Your task to perform on an android device: toggle sleep mode Image 0: 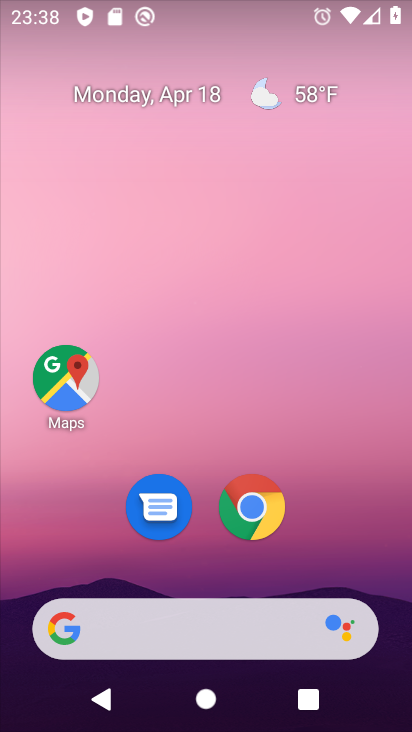
Step 0: drag from (258, 12) to (237, 622)
Your task to perform on an android device: toggle sleep mode Image 1: 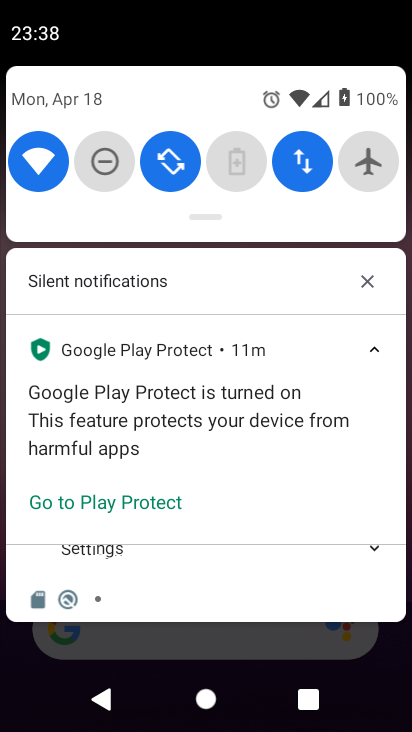
Step 1: drag from (255, 119) to (285, 660)
Your task to perform on an android device: toggle sleep mode Image 2: 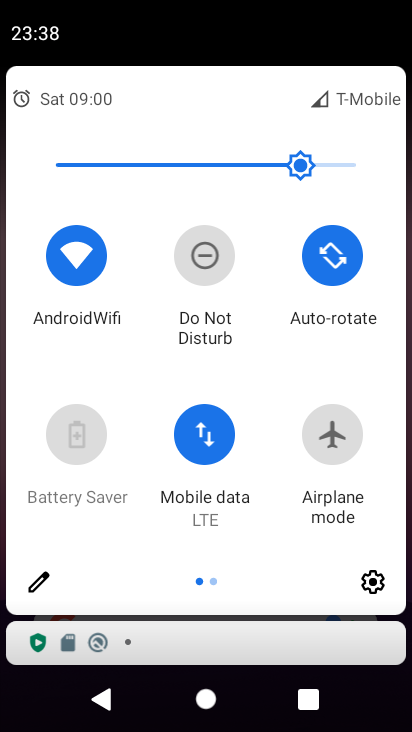
Step 2: click (387, 588)
Your task to perform on an android device: toggle sleep mode Image 3: 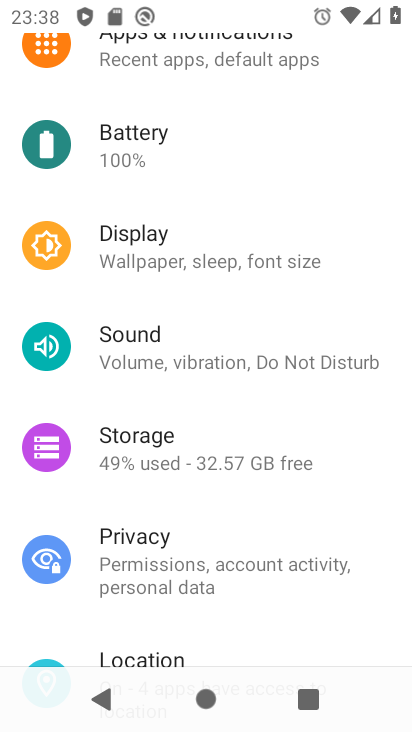
Step 3: task complete